Your task to perform on an android device: Open Youtube and go to "Your channel" Image 0: 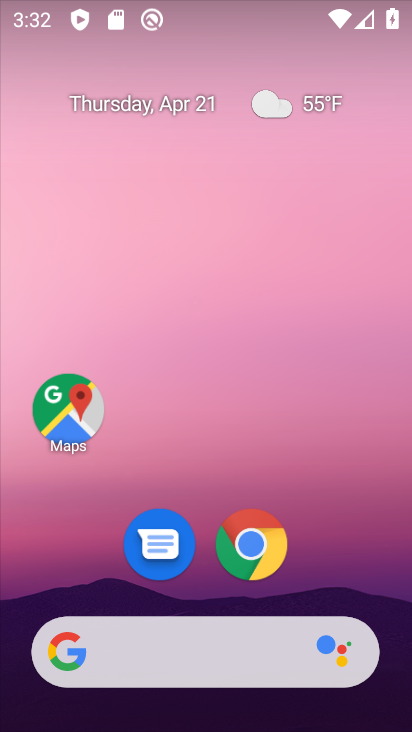
Step 0: click (263, 552)
Your task to perform on an android device: Open Youtube and go to "Your channel" Image 1: 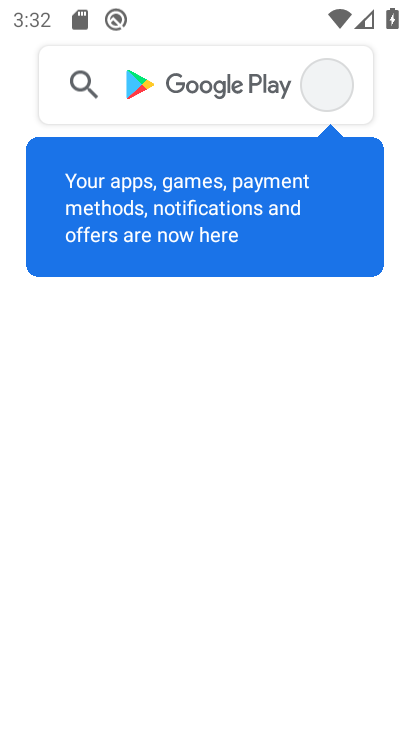
Step 1: press home button
Your task to perform on an android device: Open Youtube and go to "Your channel" Image 2: 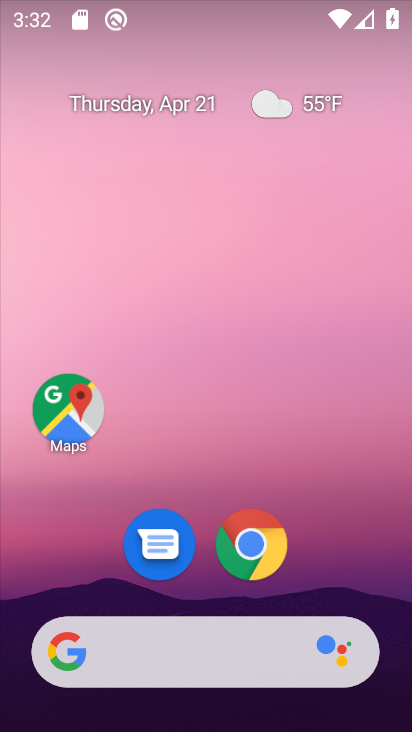
Step 2: drag from (209, 680) to (200, 169)
Your task to perform on an android device: Open Youtube and go to "Your channel" Image 3: 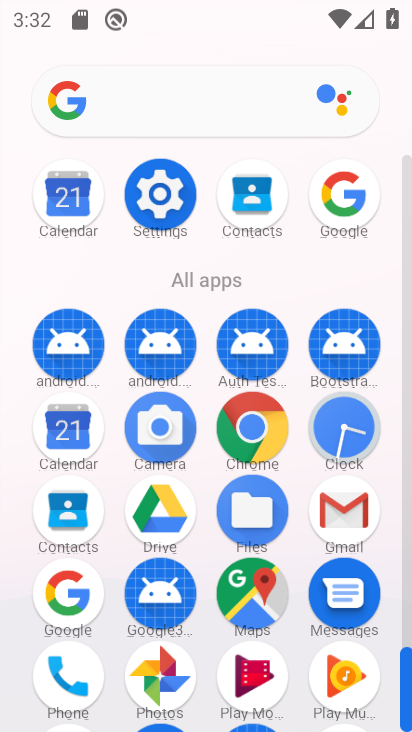
Step 3: drag from (305, 626) to (308, 148)
Your task to perform on an android device: Open Youtube and go to "Your channel" Image 4: 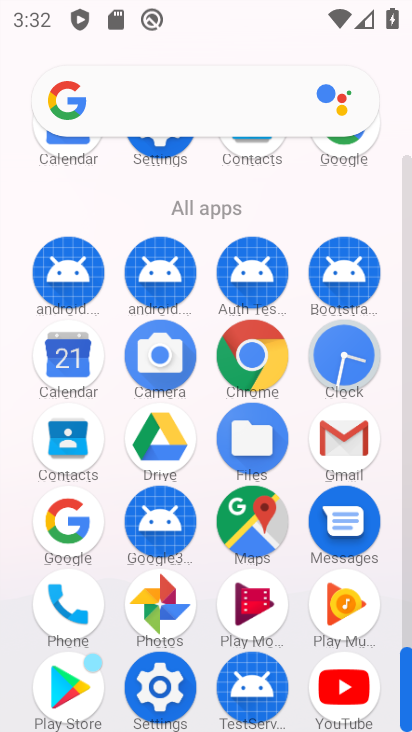
Step 4: click (349, 699)
Your task to perform on an android device: Open Youtube and go to "Your channel" Image 5: 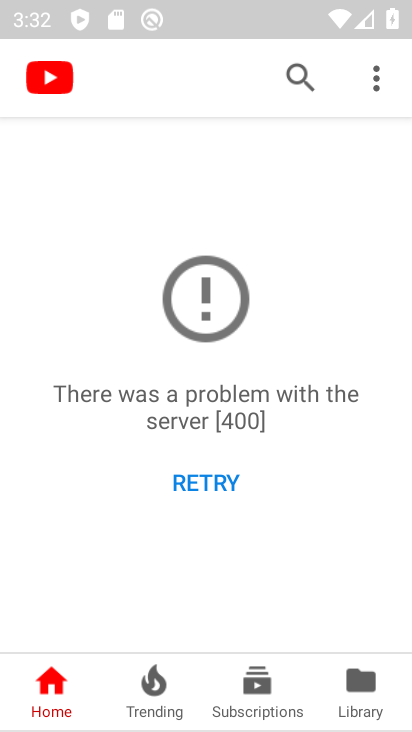
Step 5: click (203, 489)
Your task to perform on an android device: Open Youtube and go to "Your channel" Image 6: 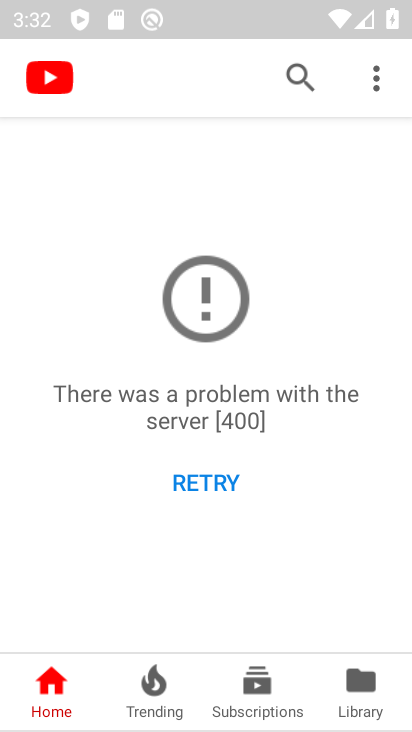
Step 6: task complete